Your task to perform on an android device: Search for pizza restaurants on Maps Image 0: 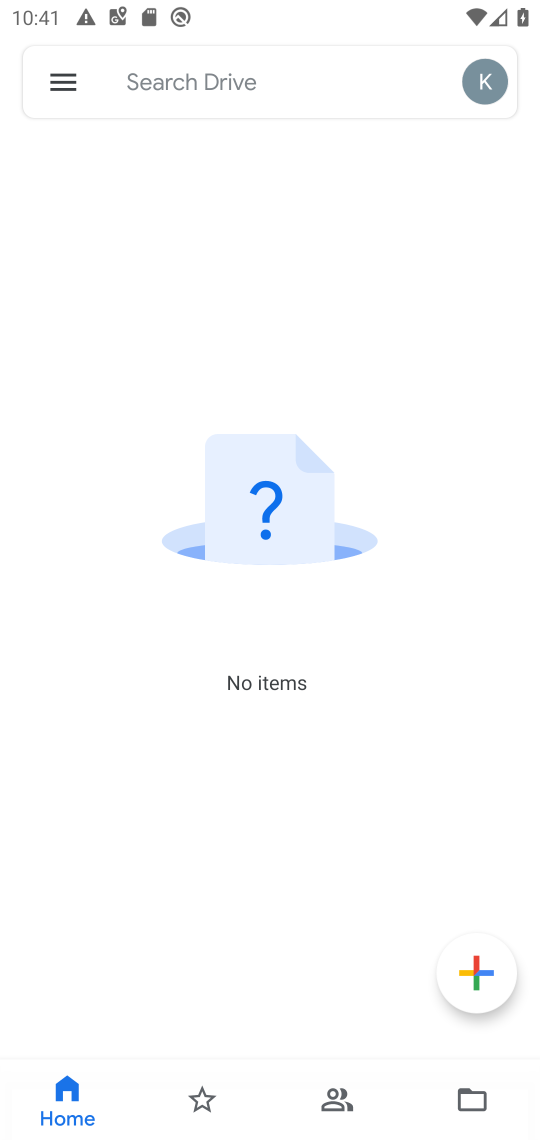
Step 0: press back button
Your task to perform on an android device: Search for pizza restaurants on Maps Image 1: 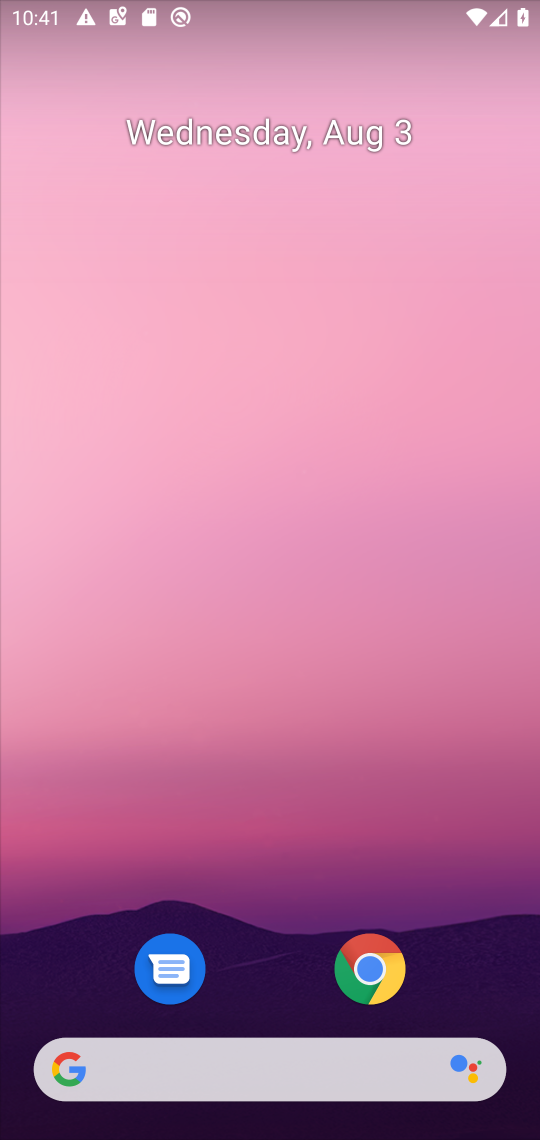
Step 1: drag from (286, 1017) to (175, 24)
Your task to perform on an android device: Search for pizza restaurants on Maps Image 2: 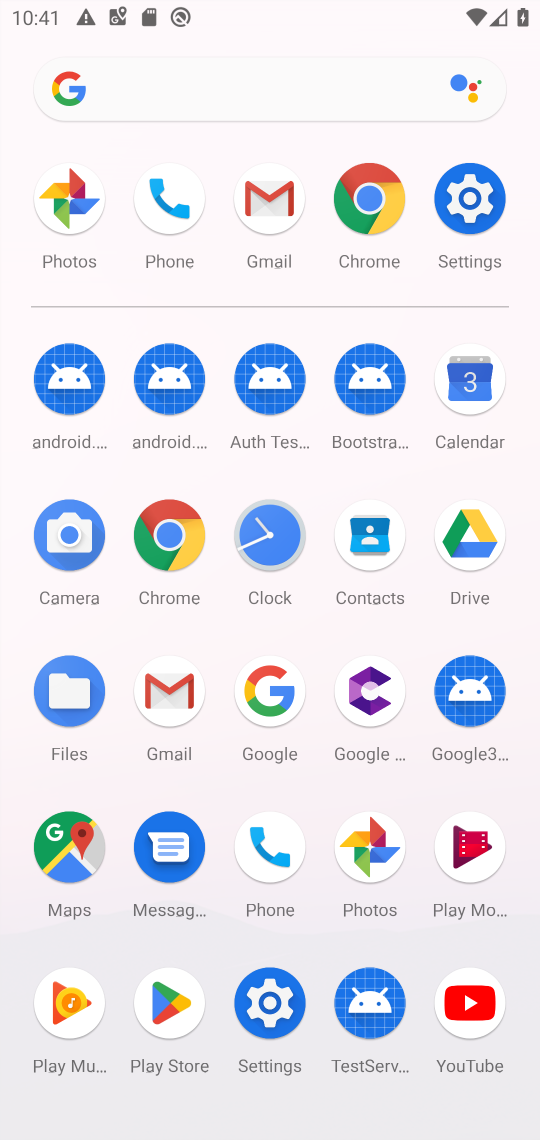
Step 2: click (65, 853)
Your task to perform on an android device: Search for pizza restaurants on Maps Image 3: 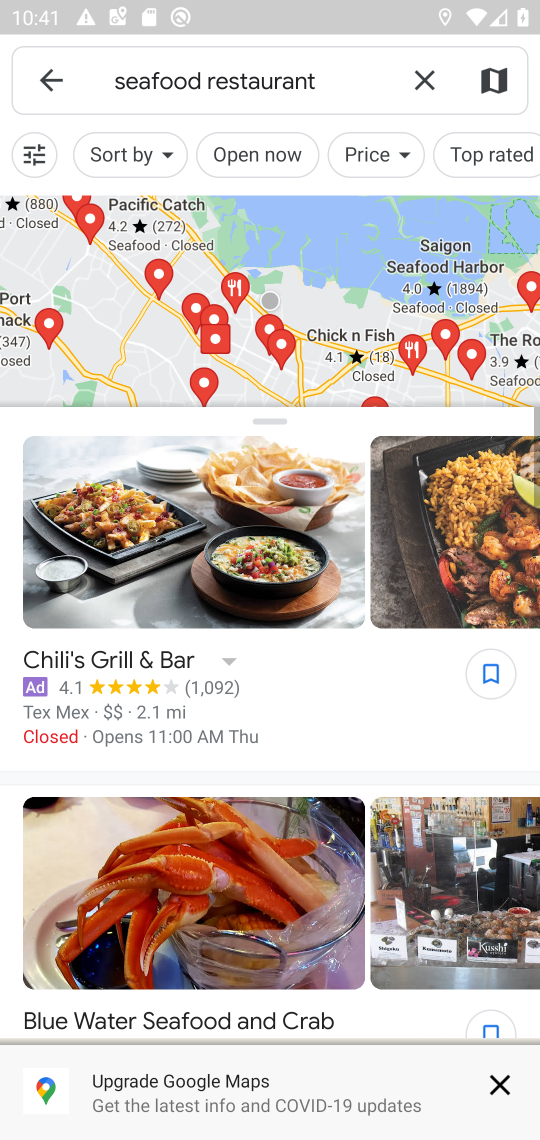
Step 3: click (55, 78)
Your task to perform on an android device: Search for pizza restaurants on Maps Image 4: 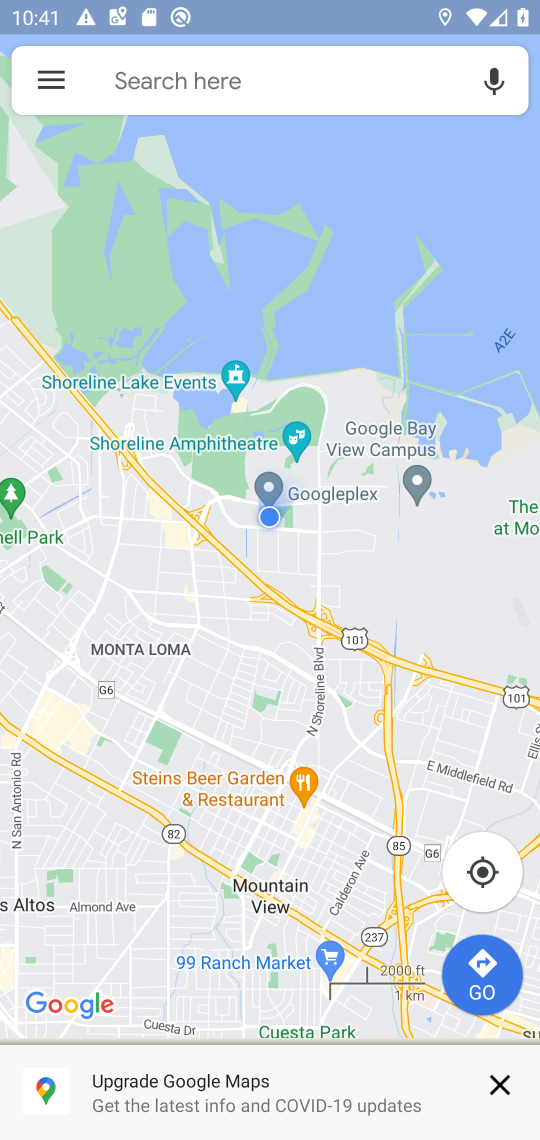
Step 4: click (318, 93)
Your task to perform on an android device: Search for pizza restaurants on Maps Image 5: 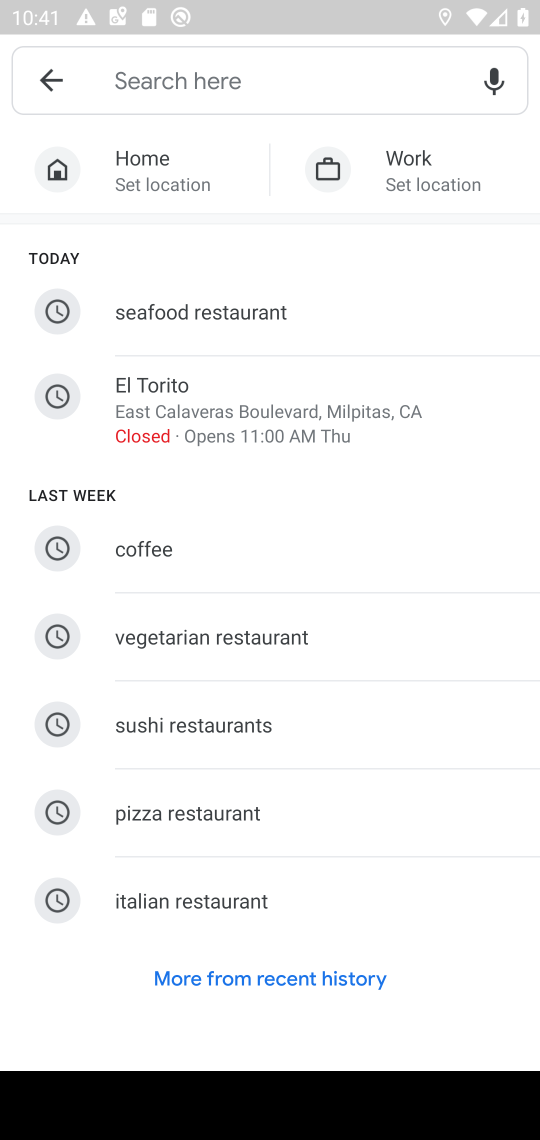
Step 5: type "pizza restaurants"
Your task to perform on an android device: Search for pizza restaurants on Maps Image 6: 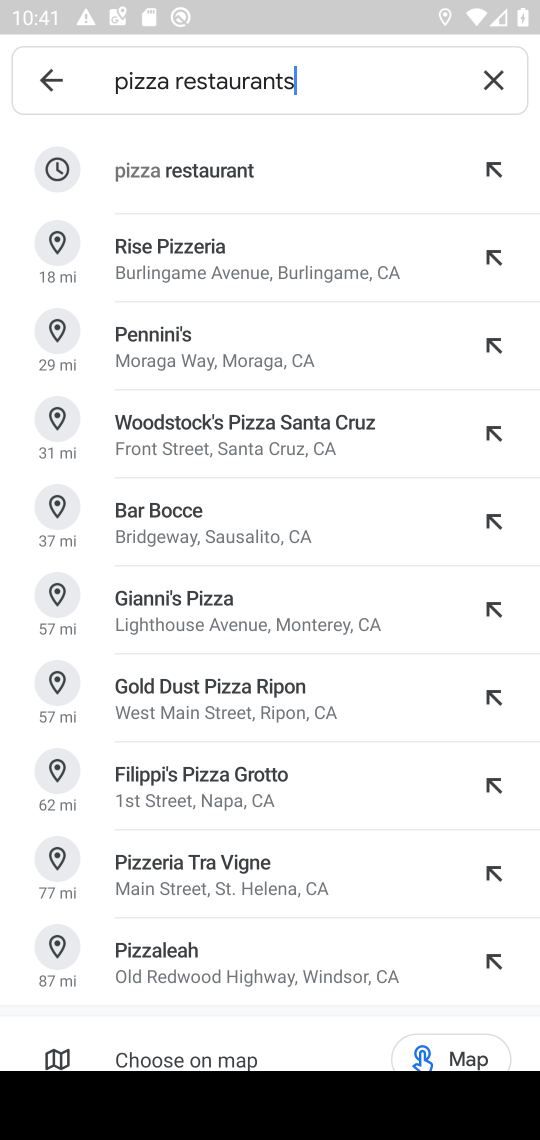
Step 6: click (178, 164)
Your task to perform on an android device: Search for pizza restaurants on Maps Image 7: 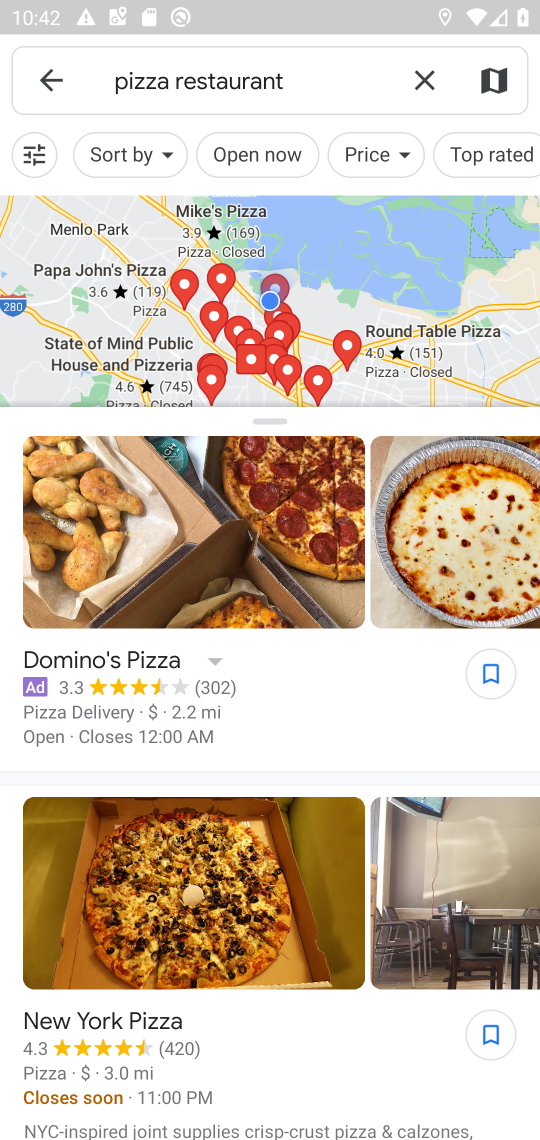
Step 7: task complete